Your task to perform on an android device: Open location settings Image 0: 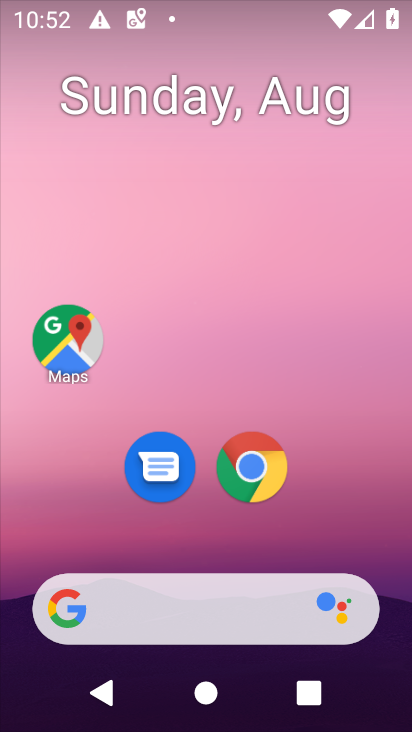
Step 0: drag from (273, 612) to (254, 329)
Your task to perform on an android device: Open location settings Image 1: 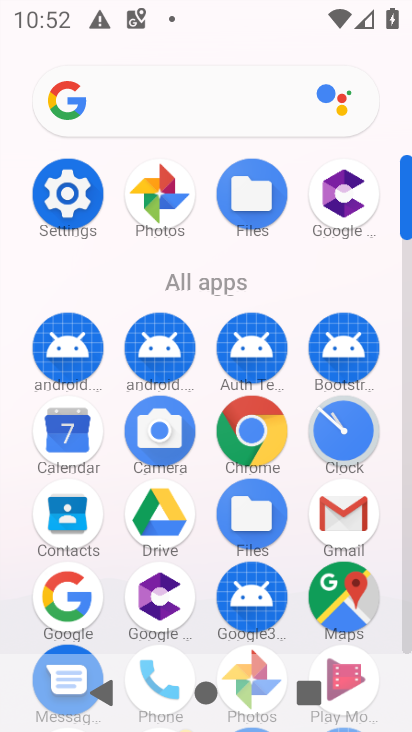
Step 1: click (42, 203)
Your task to perform on an android device: Open location settings Image 2: 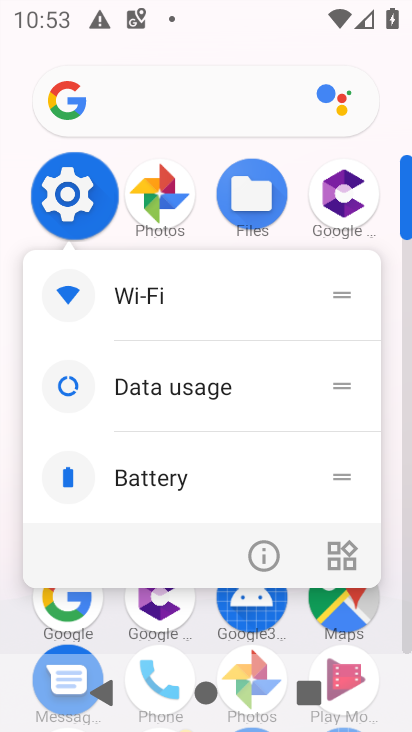
Step 2: click (48, 206)
Your task to perform on an android device: Open location settings Image 3: 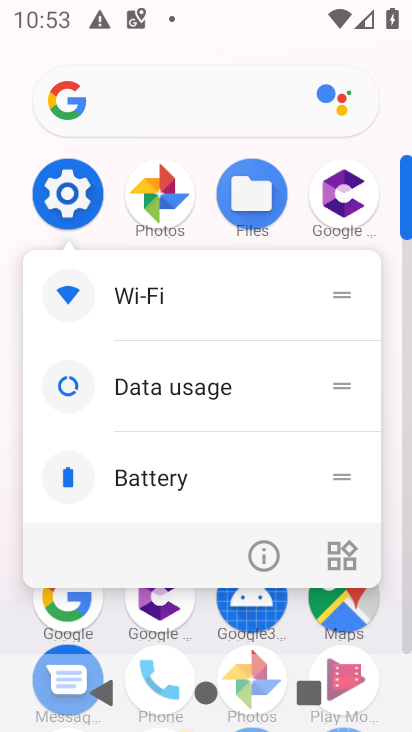
Step 3: click (48, 206)
Your task to perform on an android device: Open location settings Image 4: 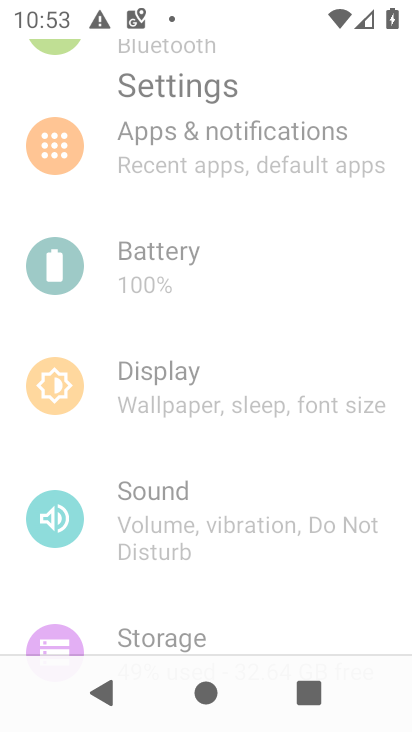
Step 4: click (59, 200)
Your task to perform on an android device: Open location settings Image 5: 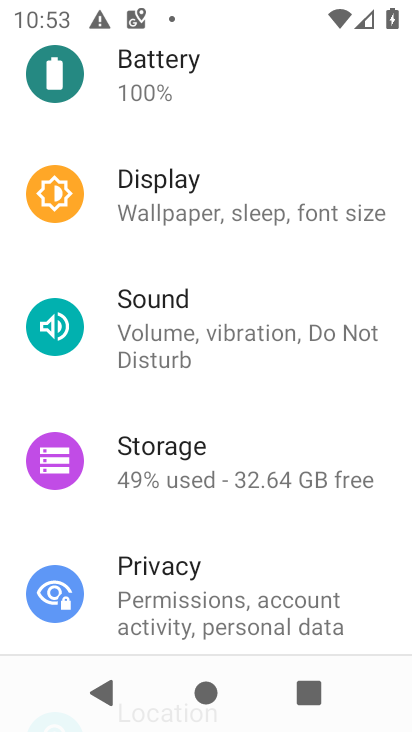
Step 5: click (61, 202)
Your task to perform on an android device: Open location settings Image 6: 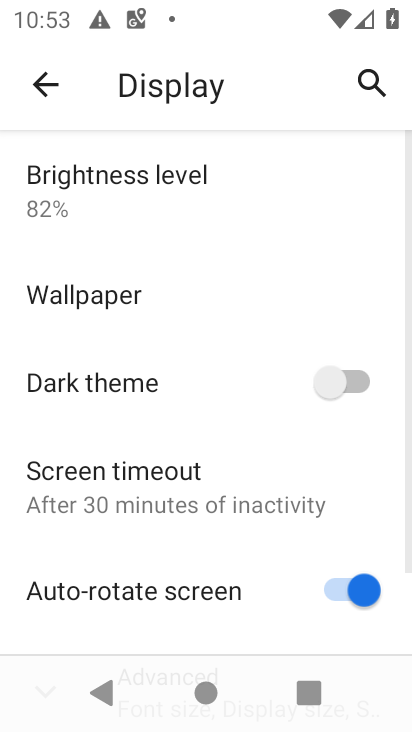
Step 6: click (32, 75)
Your task to perform on an android device: Open location settings Image 7: 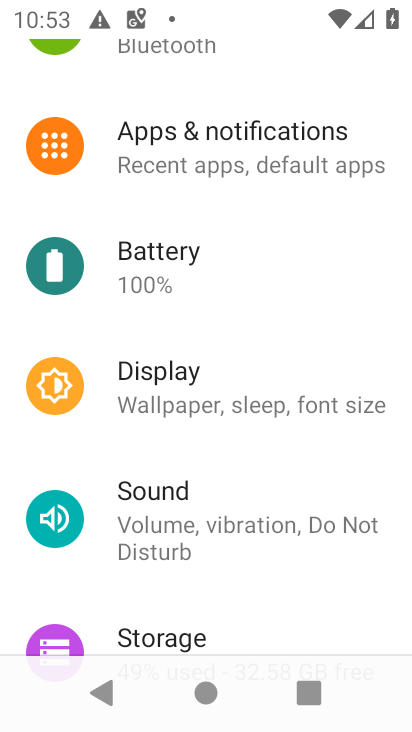
Step 7: drag from (173, 522) to (181, 326)
Your task to perform on an android device: Open location settings Image 8: 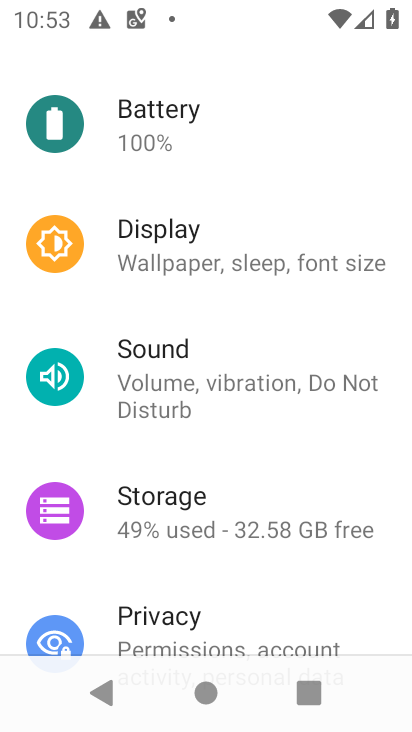
Step 8: drag from (205, 507) to (219, 302)
Your task to perform on an android device: Open location settings Image 9: 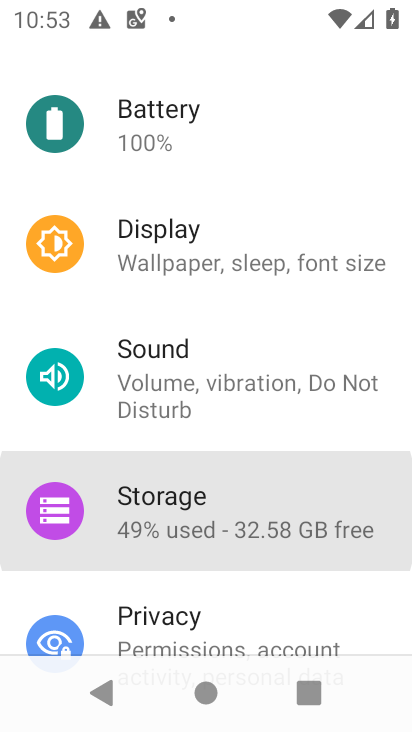
Step 9: drag from (233, 484) to (292, 251)
Your task to perform on an android device: Open location settings Image 10: 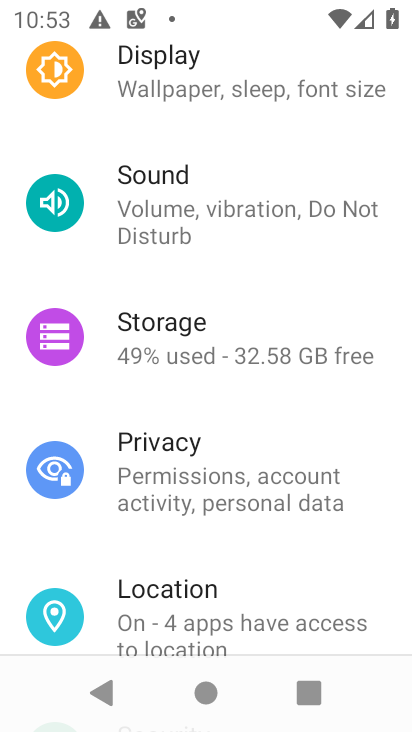
Step 10: drag from (258, 512) to (262, 300)
Your task to perform on an android device: Open location settings Image 11: 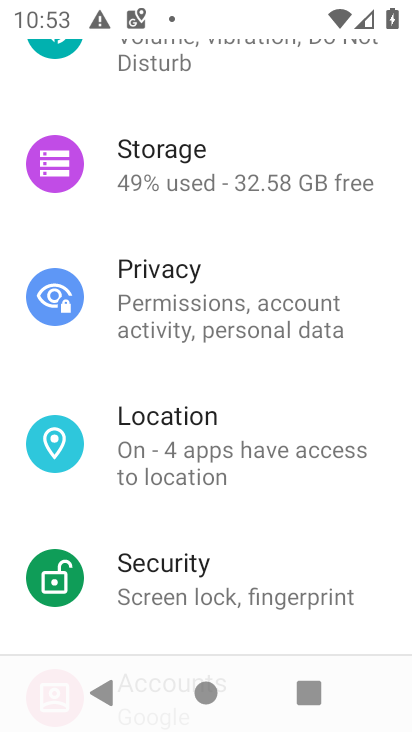
Step 11: click (218, 372)
Your task to perform on an android device: Open location settings Image 12: 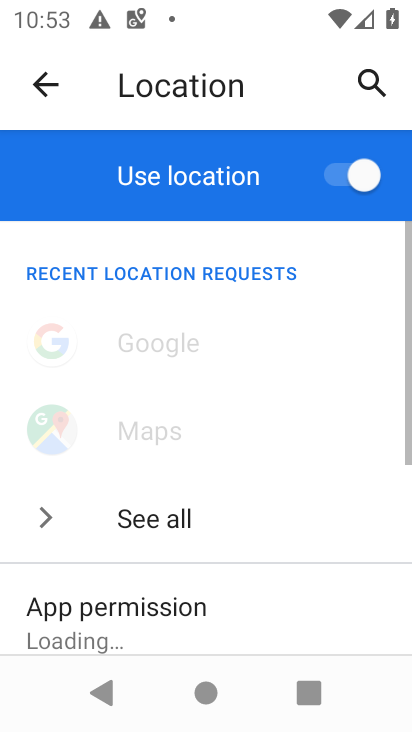
Step 12: click (185, 418)
Your task to perform on an android device: Open location settings Image 13: 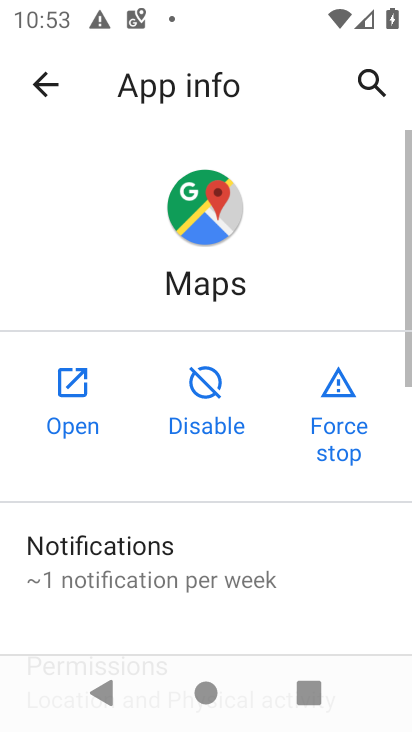
Step 13: click (43, 96)
Your task to perform on an android device: Open location settings Image 14: 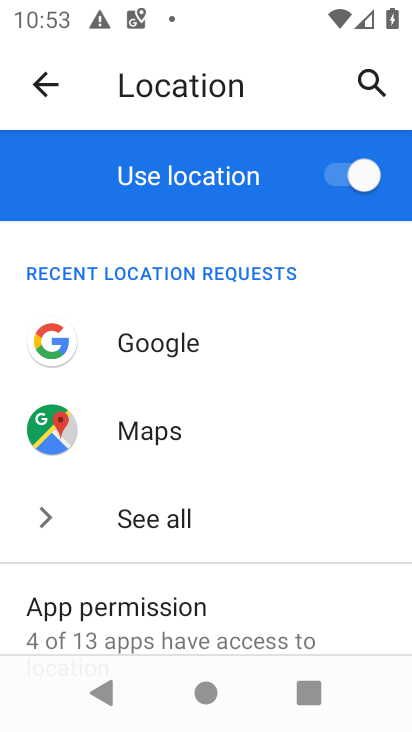
Step 14: drag from (210, 505) to (175, 295)
Your task to perform on an android device: Open location settings Image 15: 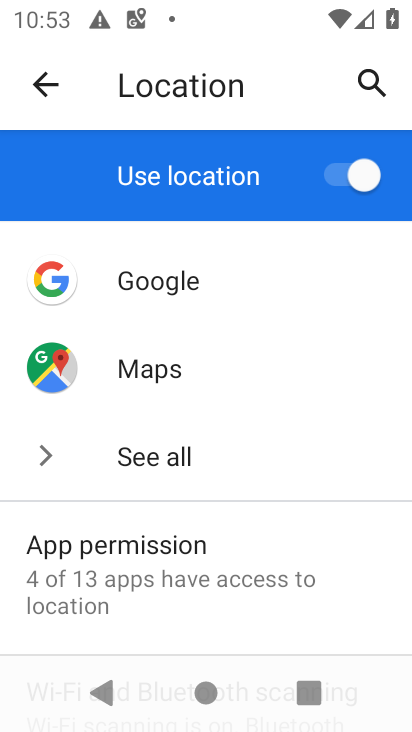
Step 15: drag from (268, 217) to (224, 256)
Your task to perform on an android device: Open location settings Image 16: 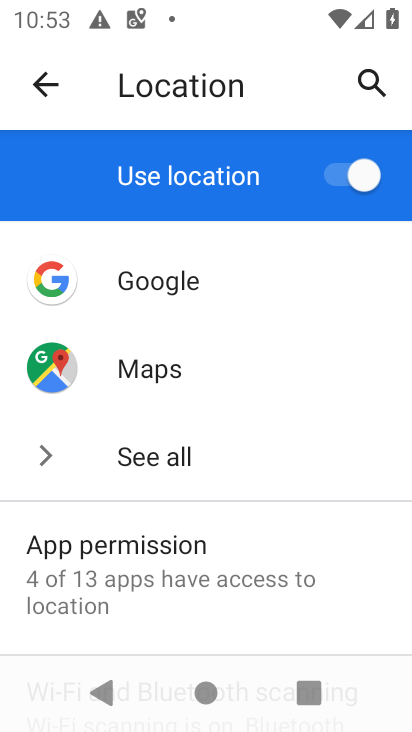
Step 16: drag from (276, 515) to (276, 390)
Your task to perform on an android device: Open location settings Image 17: 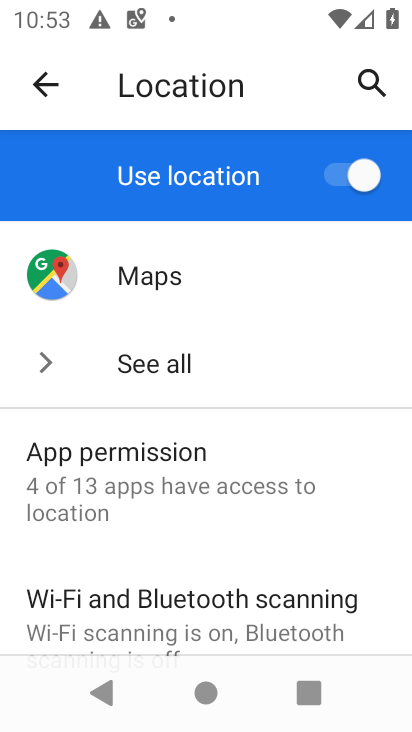
Step 17: drag from (227, 383) to (227, 255)
Your task to perform on an android device: Open location settings Image 18: 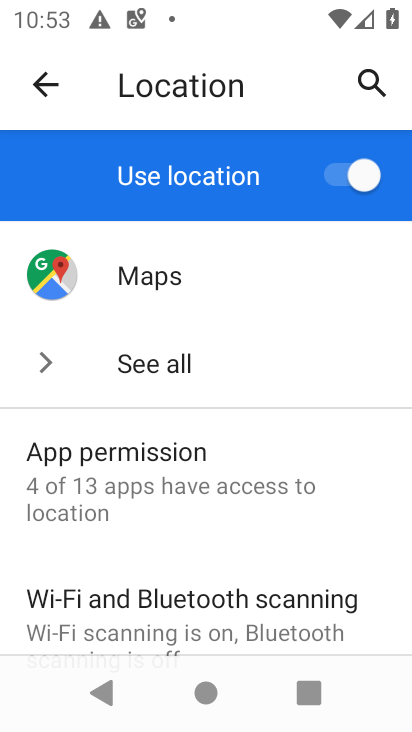
Step 18: drag from (156, 533) to (156, 324)
Your task to perform on an android device: Open location settings Image 19: 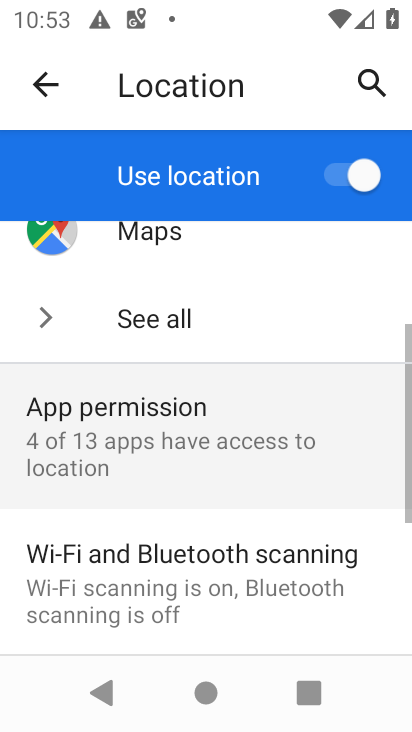
Step 19: drag from (173, 466) to (188, 276)
Your task to perform on an android device: Open location settings Image 20: 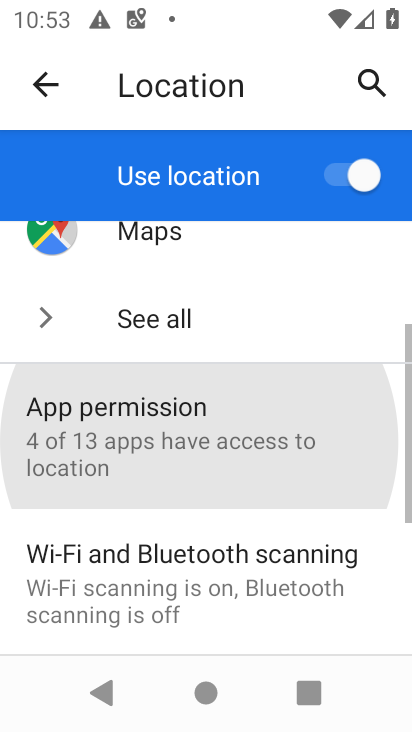
Step 20: drag from (221, 421) to (241, 234)
Your task to perform on an android device: Open location settings Image 21: 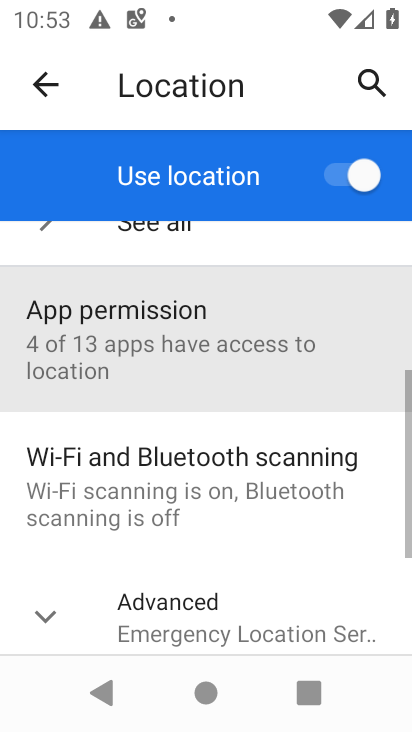
Step 21: drag from (226, 420) to (223, 224)
Your task to perform on an android device: Open location settings Image 22: 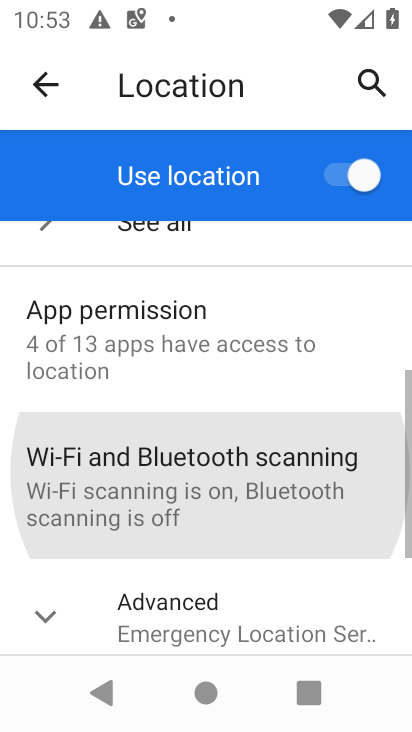
Step 22: drag from (209, 469) to (205, 321)
Your task to perform on an android device: Open location settings Image 23: 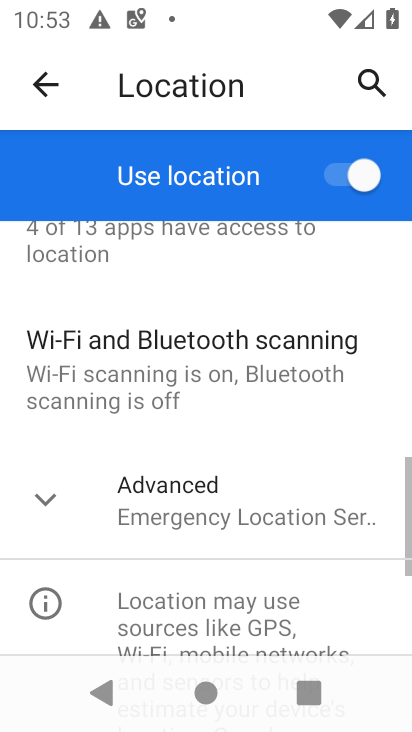
Step 23: drag from (211, 387) to (211, 279)
Your task to perform on an android device: Open location settings Image 24: 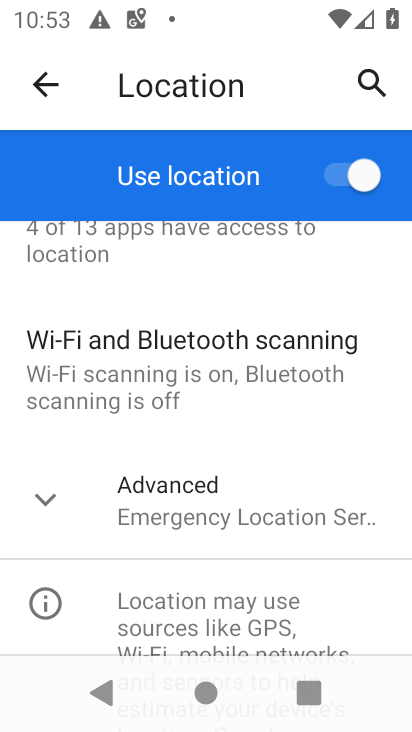
Step 24: drag from (216, 485) to (231, 330)
Your task to perform on an android device: Open location settings Image 25: 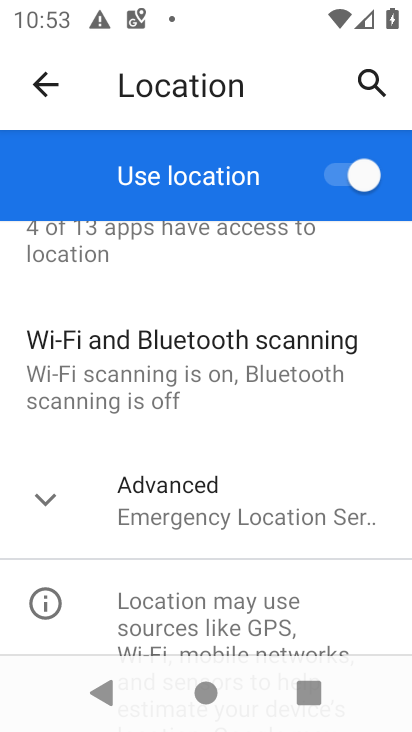
Step 25: drag from (238, 461) to (225, 316)
Your task to perform on an android device: Open location settings Image 26: 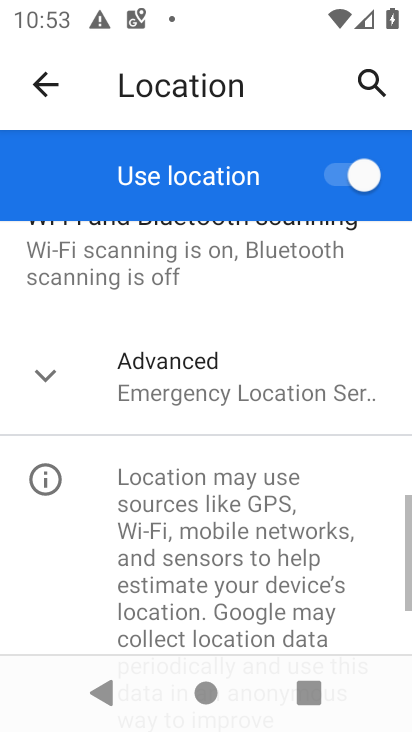
Step 26: click (177, 499)
Your task to perform on an android device: Open location settings Image 27: 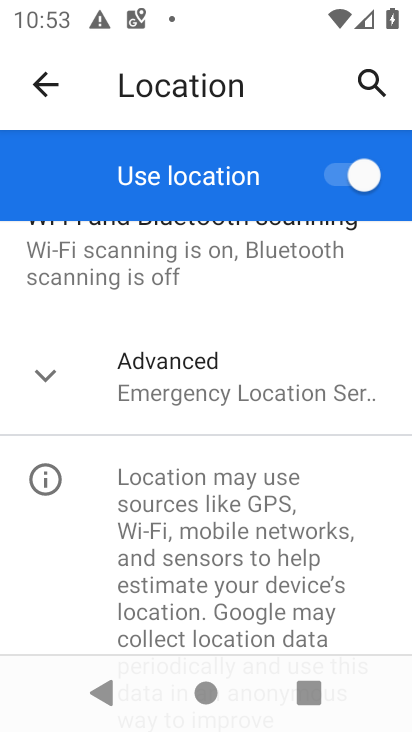
Step 27: click (181, 395)
Your task to perform on an android device: Open location settings Image 28: 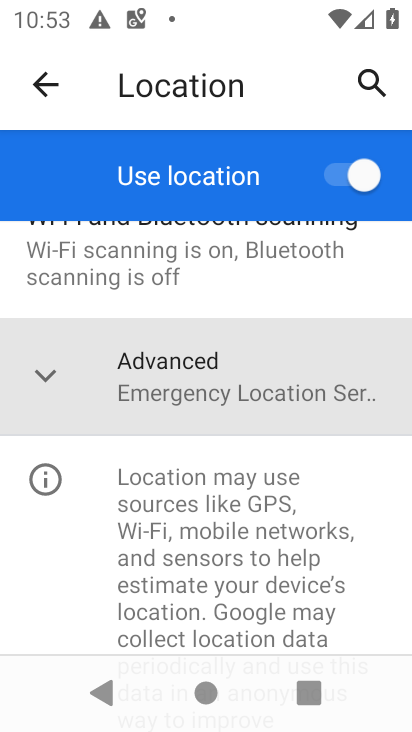
Step 28: click (181, 395)
Your task to perform on an android device: Open location settings Image 29: 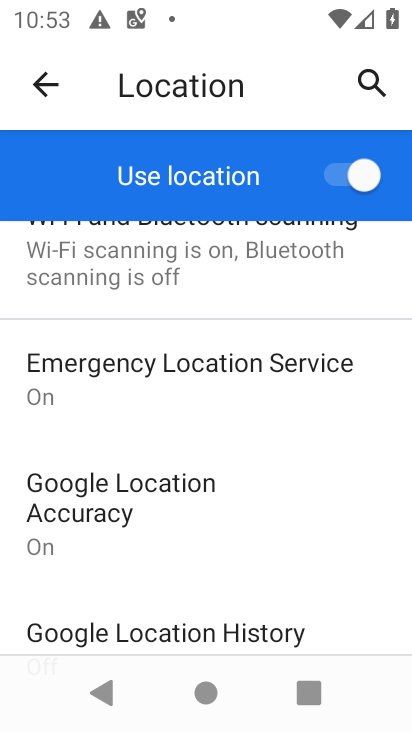
Step 29: drag from (239, 506) to (235, 289)
Your task to perform on an android device: Open location settings Image 30: 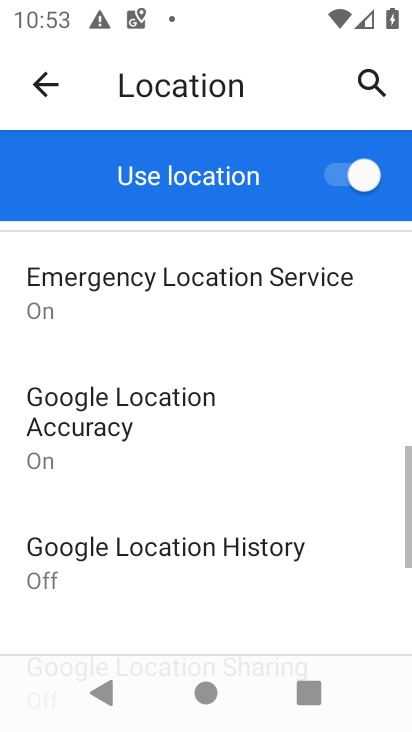
Step 30: drag from (253, 467) to (231, 363)
Your task to perform on an android device: Open location settings Image 31: 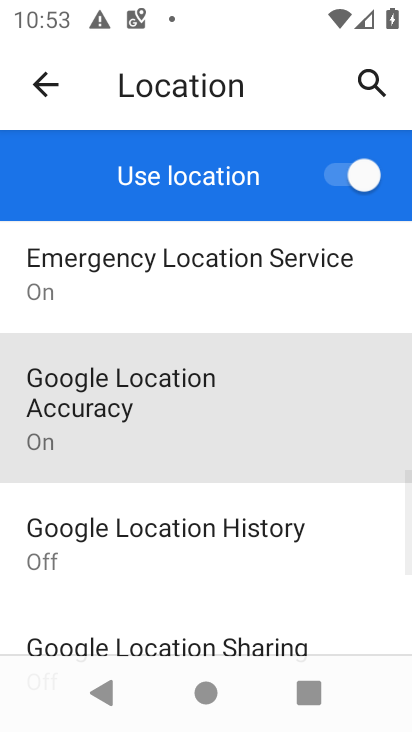
Step 31: drag from (234, 507) to (260, 325)
Your task to perform on an android device: Open location settings Image 32: 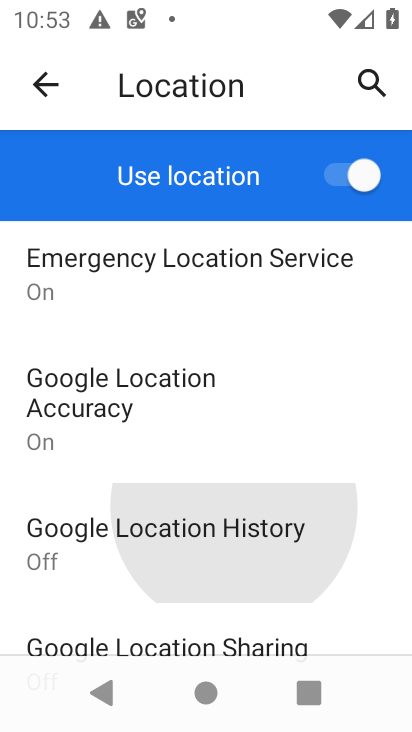
Step 32: drag from (270, 303) to (213, 568)
Your task to perform on an android device: Open location settings Image 33: 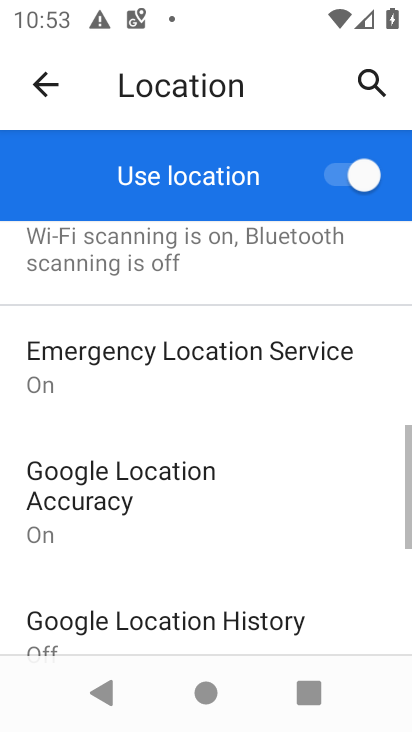
Step 33: drag from (252, 624) to (252, 661)
Your task to perform on an android device: Open location settings Image 34: 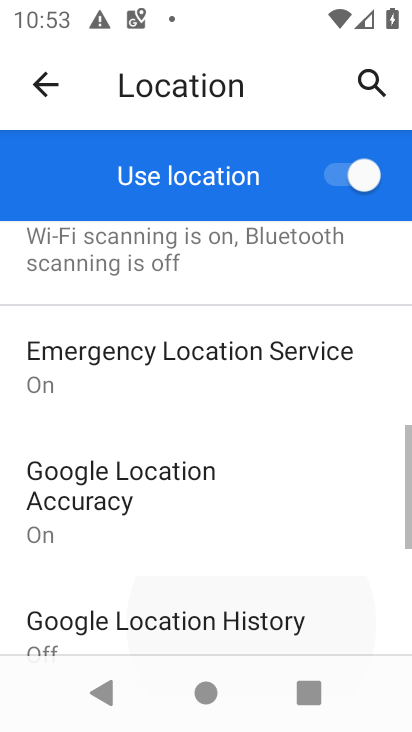
Step 34: drag from (307, 359) to (285, 615)
Your task to perform on an android device: Open location settings Image 35: 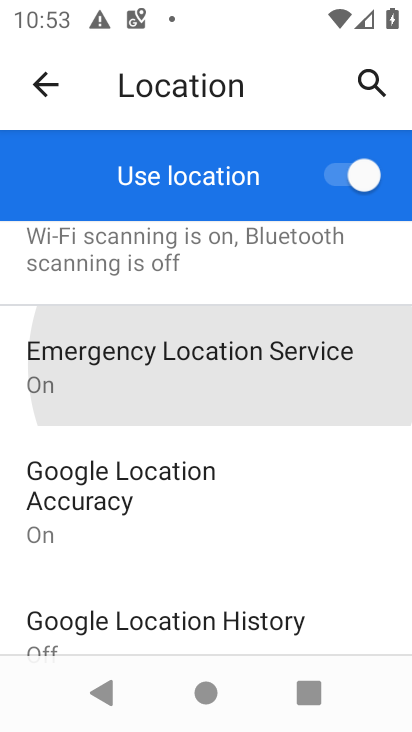
Step 35: drag from (285, 335) to (270, 533)
Your task to perform on an android device: Open location settings Image 36: 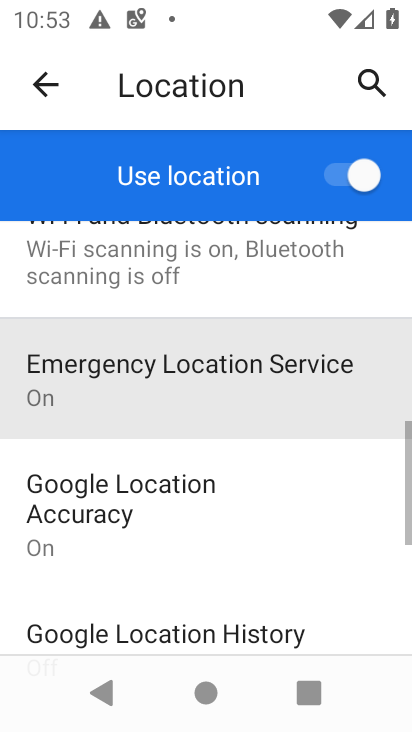
Step 36: drag from (298, 446) to (298, 609)
Your task to perform on an android device: Open location settings Image 37: 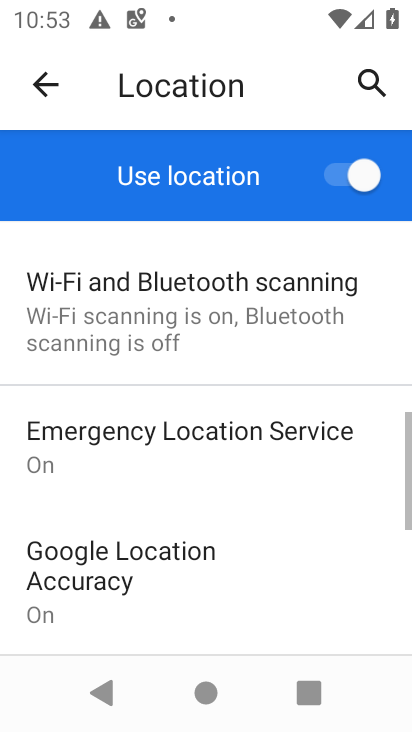
Step 37: drag from (269, 290) to (242, 497)
Your task to perform on an android device: Open location settings Image 38: 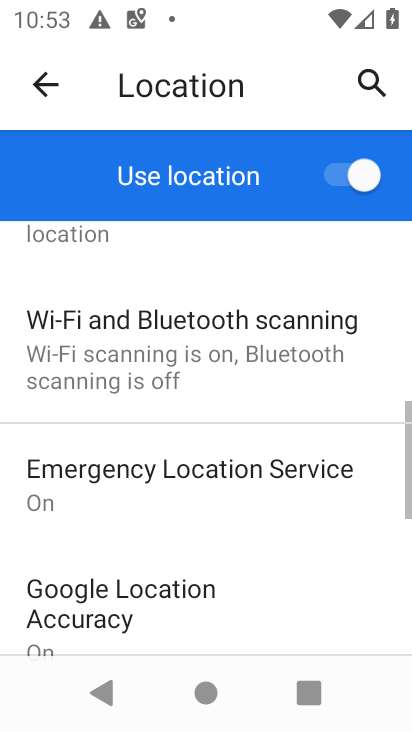
Step 38: click (233, 433)
Your task to perform on an android device: Open location settings Image 39: 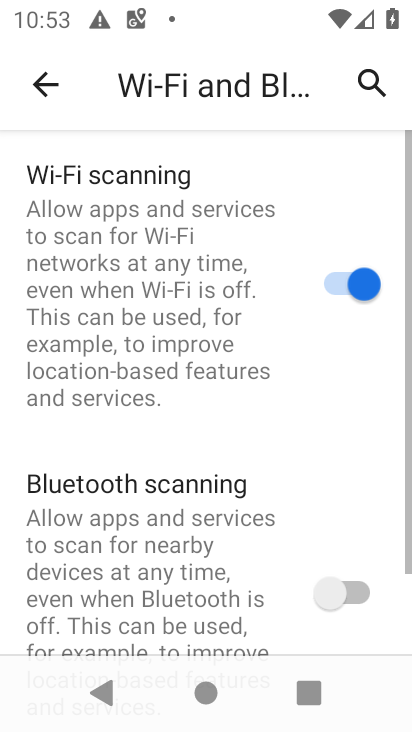
Step 39: task complete